Your task to perform on an android device: find which apps use the phone's location Image 0: 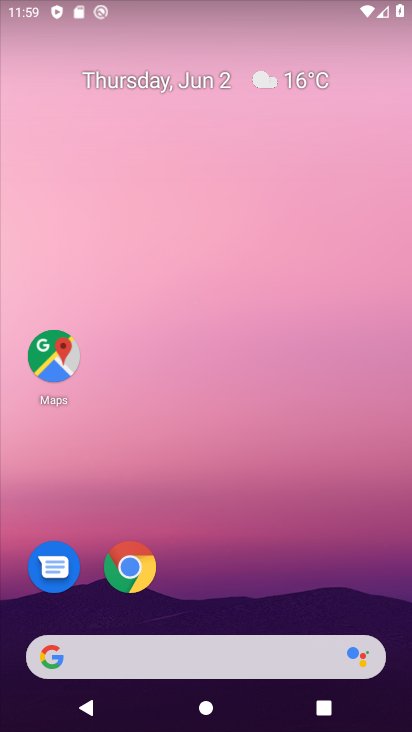
Step 0: drag from (360, 595) to (355, 345)
Your task to perform on an android device: find which apps use the phone's location Image 1: 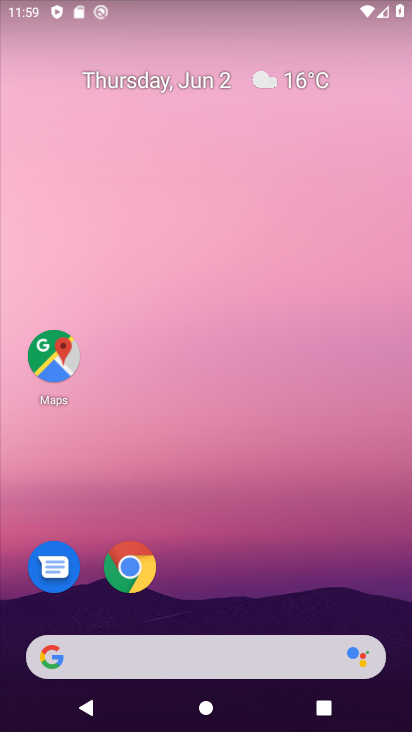
Step 1: drag from (342, 605) to (349, 271)
Your task to perform on an android device: find which apps use the phone's location Image 2: 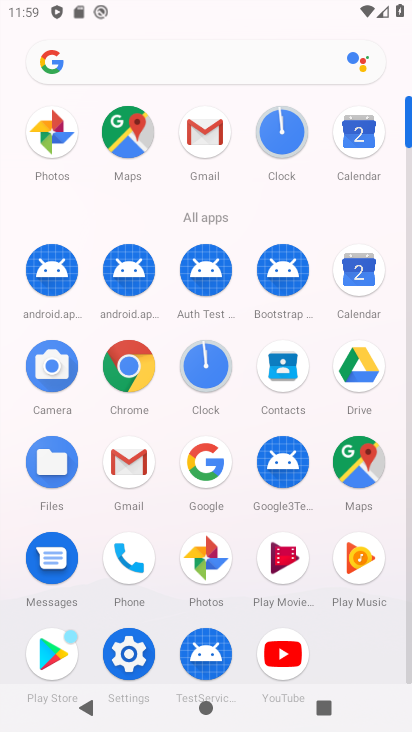
Step 2: click (127, 646)
Your task to perform on an android device: find which apps use the phone's location Image 3: 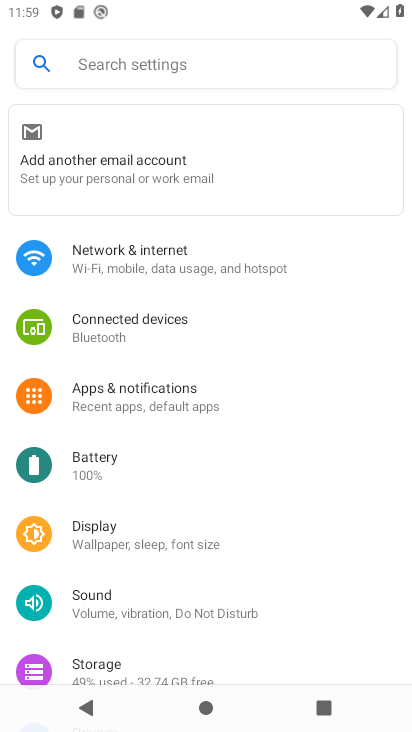
Step 3: drag from (138, 618) to (148, 430)
Your task to perform on an android device: find which apps use the phone's location Image 4: 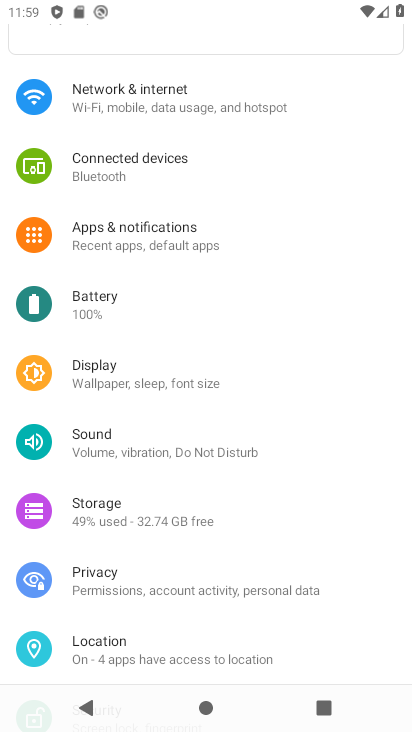
Step 4: click (143, 647)
Your task to perform on an android device: find which apps use the phone's location Image 5: 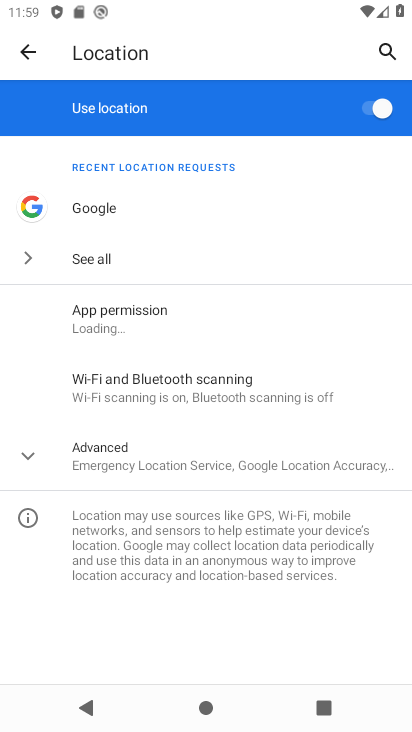
Step 5: click (121, 323)
Your task to perform on an android device: find which apps use the phone's location Image 6: 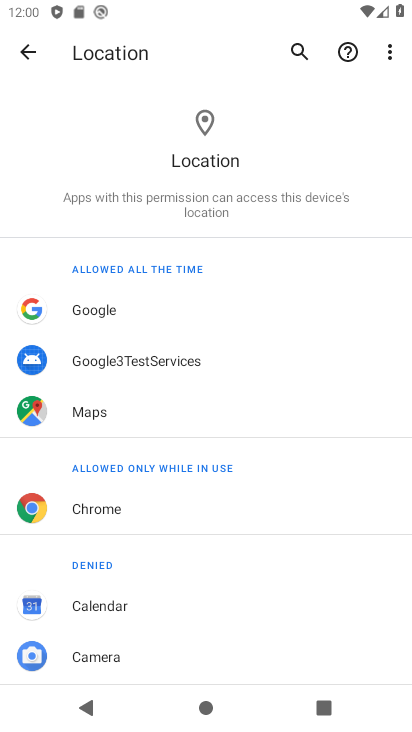
Step 6: task complete